Your task to perform on an android device: all mails in gmail Image 0: 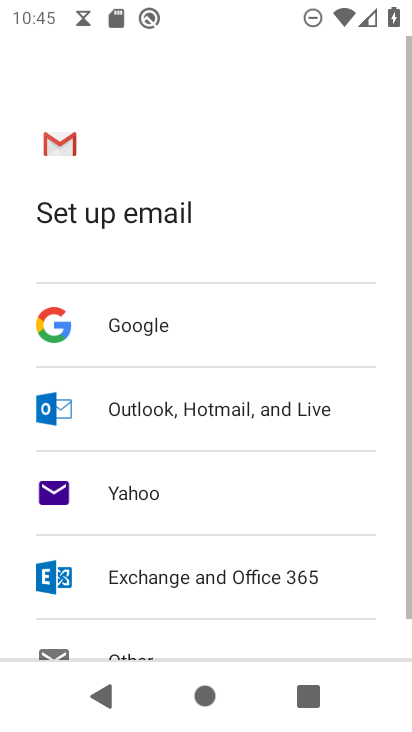
Step 0: press back button
Your task to perform on an android device: all mails in gmail Image 1: 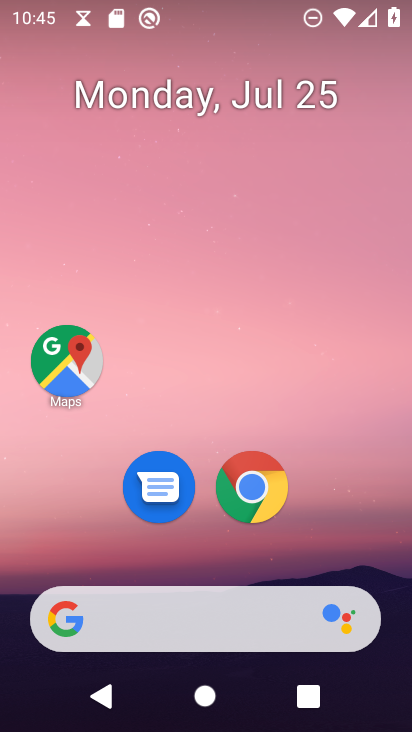
Step 1: drag from (142, 570) to (171, 6)
Your task to perform on an android device: all mails in gmail Image 2: 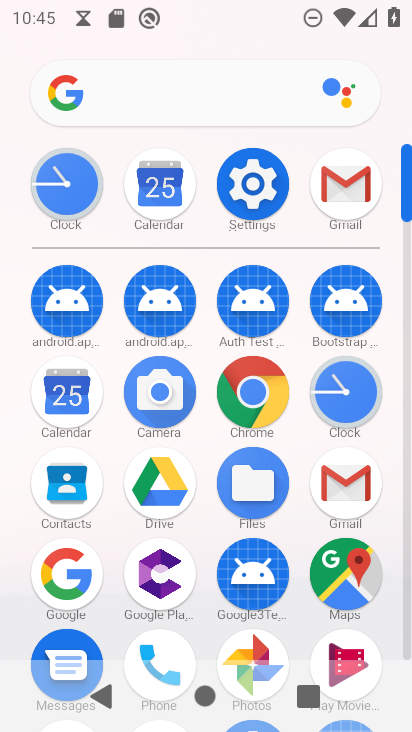
Step 2: click (340, 181)
Your task to perform on an android device: all mails in gmail Image 3: 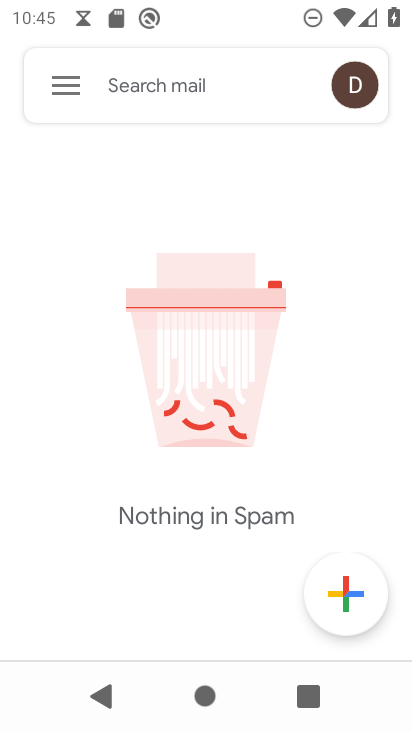
Step 3: click (59, 75)
Your task to perform on an android device: all mails in gmail Image 4: 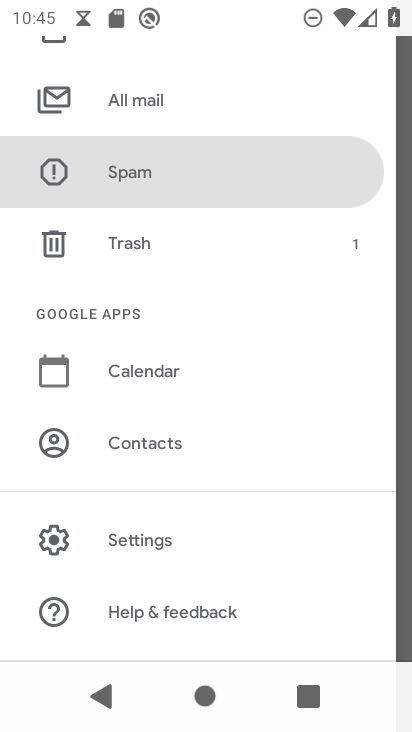
Step 4: click (182, 105)
Your task to perform on an android device: all mails in gmail Image 5: 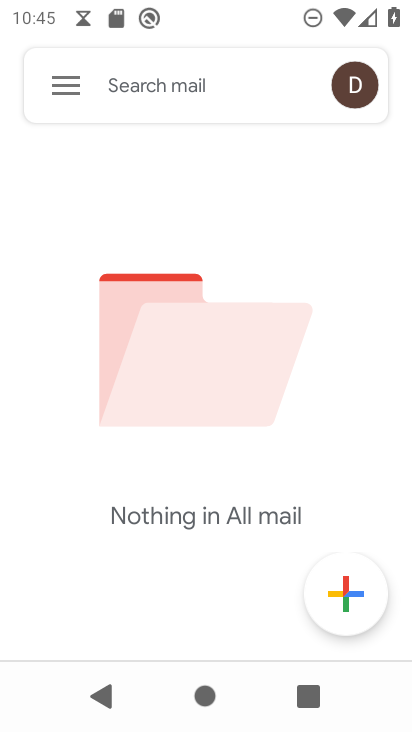
Step 5: task complete